Your task to perform on an android device: Show me the alarms in the clock app Image 0: 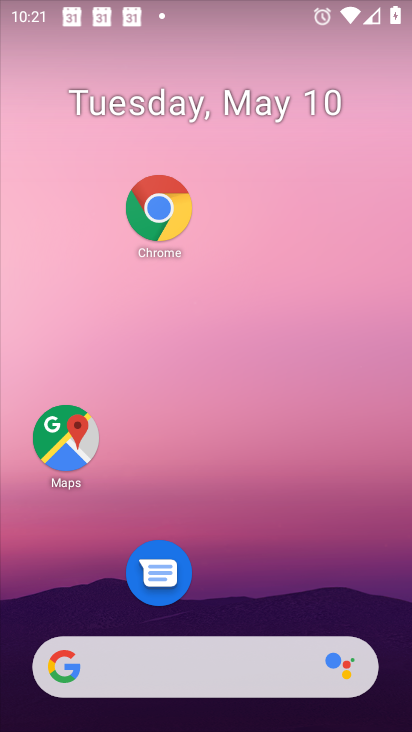
Step 0: drag from (290, 709) to (337, 212)
Your task to perform on an android device: Show me the alarms in the clock app Image 1: 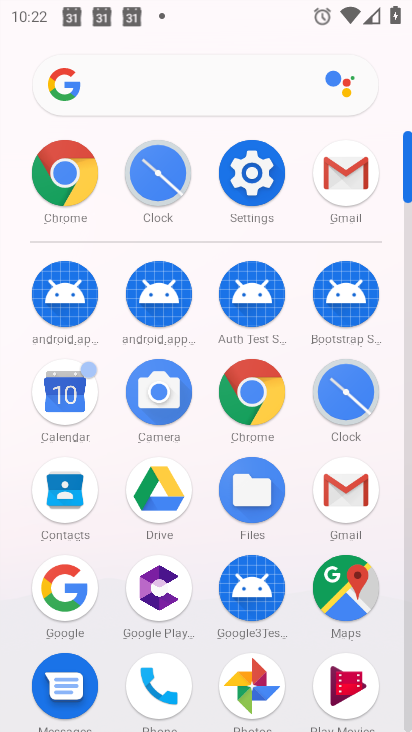
Step 1: click (326, 407)
Your task to perform on an android device: Show me the alarms in the clock app Image 2: 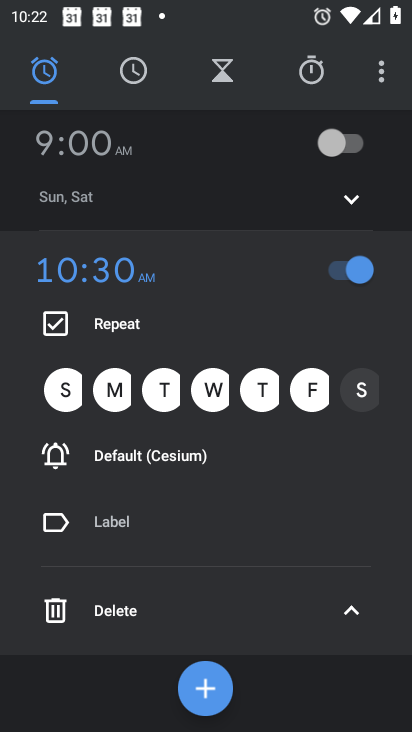
Step 2: click (180, 191)
Your task to perform on an android device: Show me the alarms in the clock app Image 3: 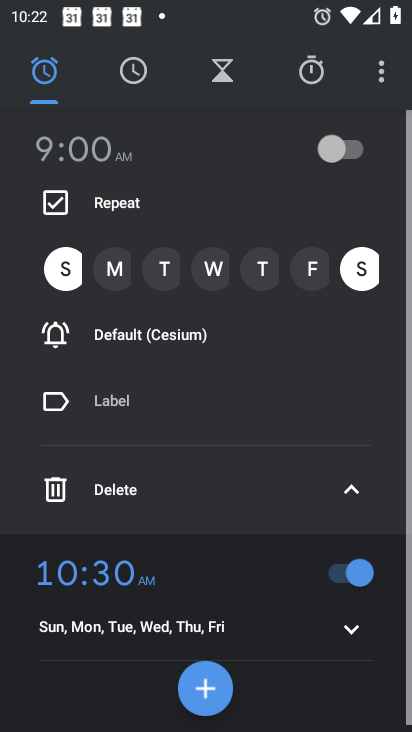
Step 3: click (346, 143)
Your task to perform on an android device: Show me the alarms in the clock app Image 4: 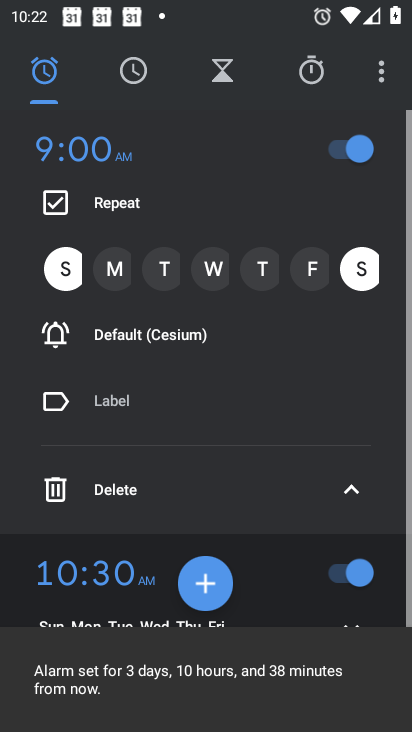
Step 4: task complete